Your task to perform on an android device: open app "Pandora - Music & Podcasts" (install if not already installed) Image 0: 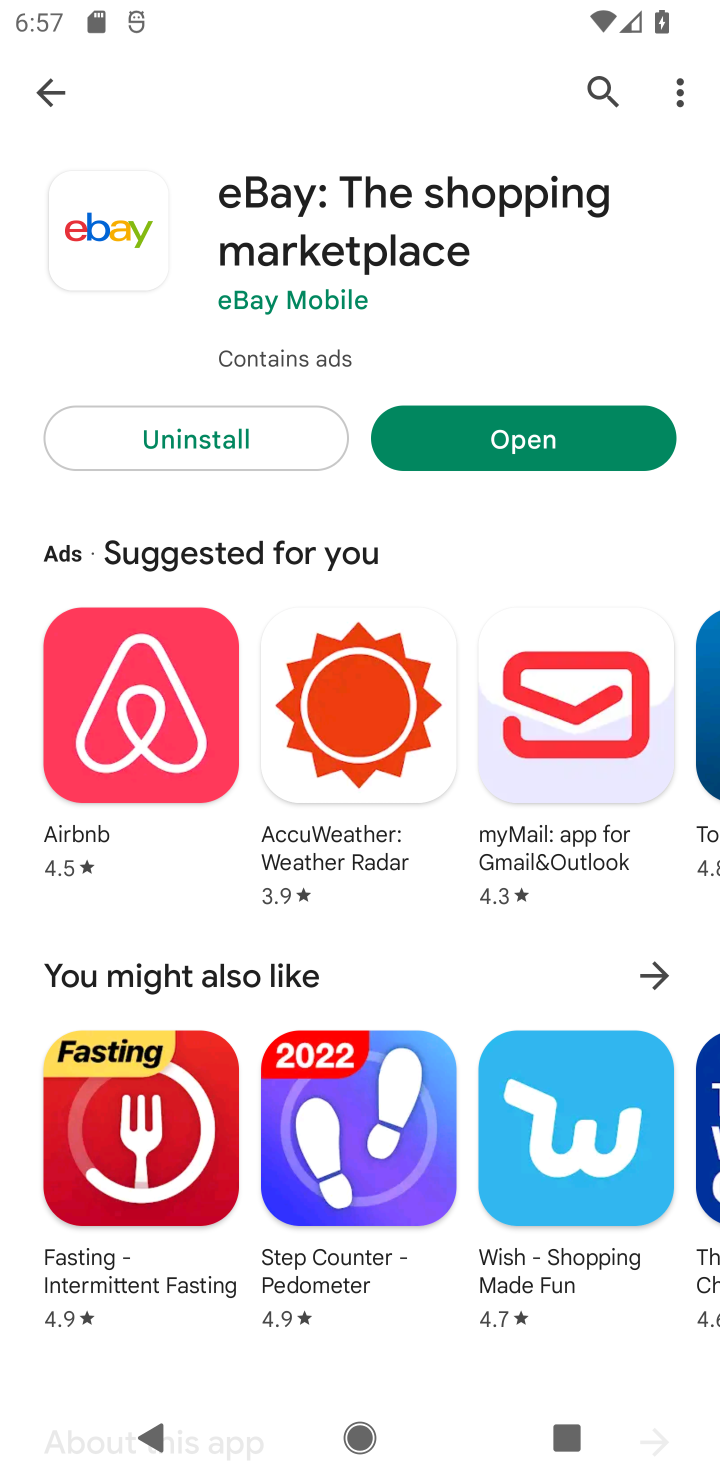
Step 0: click (618, 101)
Your task to perform on an android device: open app "Pandora - Music & Podcasts" (install if not already installed) Image 1: 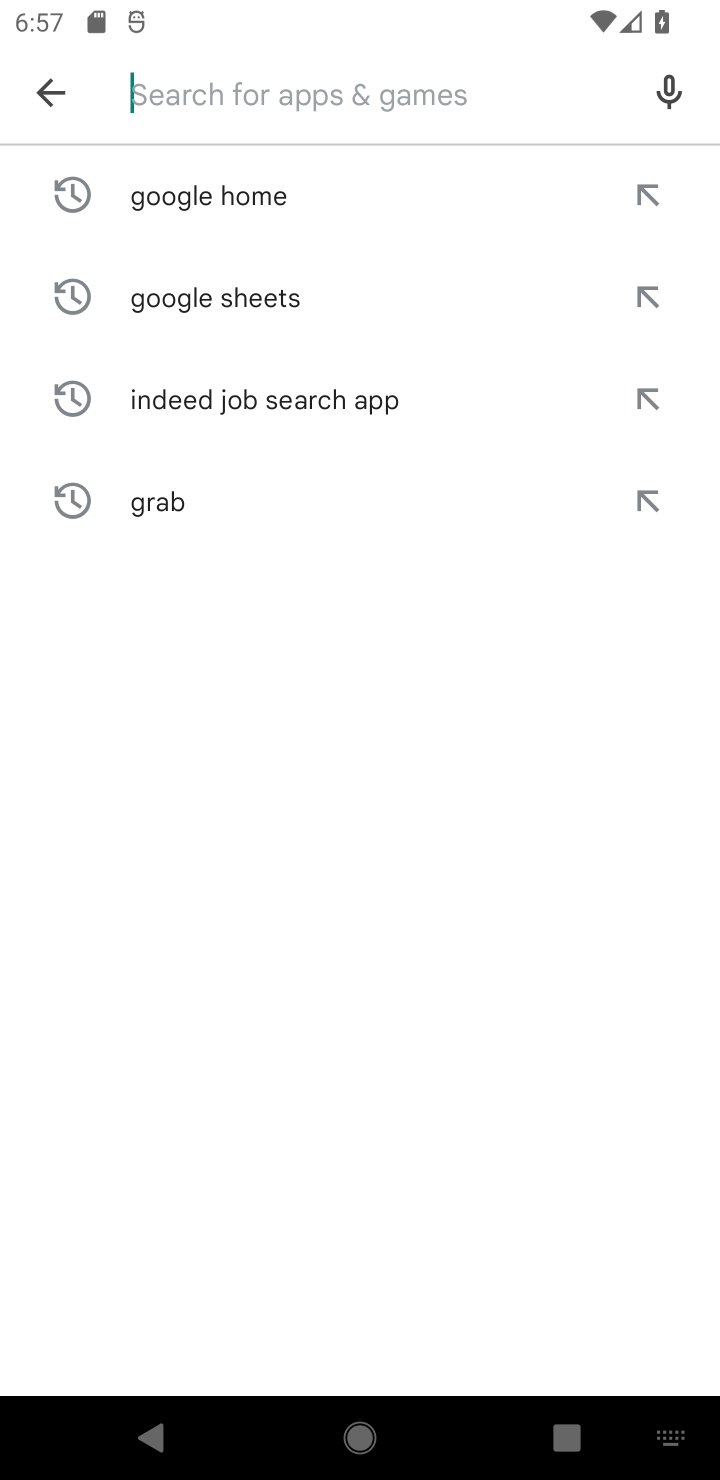
Step 1: click (475, 105)
Your task to perform on an android device: open app "Pandora - Music & Podcasts" (install if not already installed) Image 2: 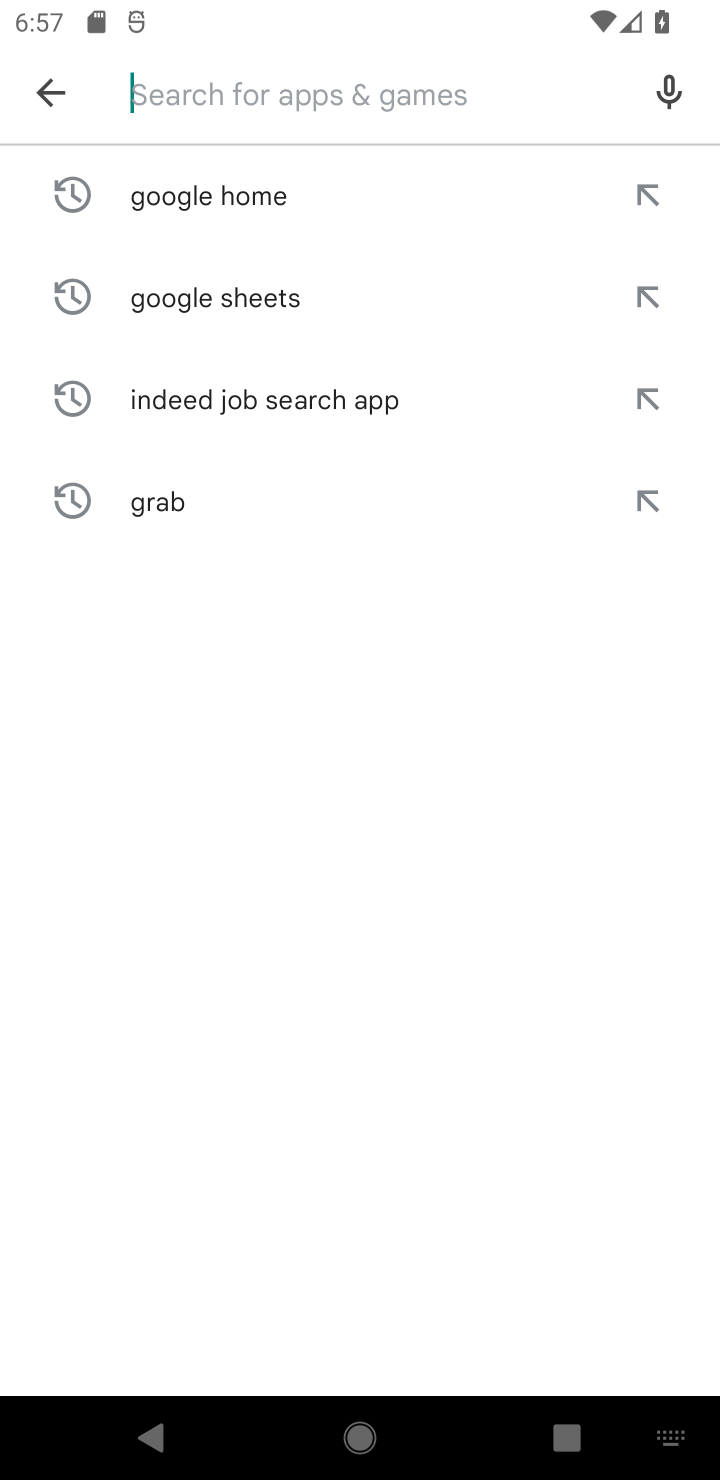
Step 2: type "Pandora - Music & Podcasts"
Your task to perform on an android device: open app "Pandora - Music & Podcasts" (install if not already installed) Image 3: 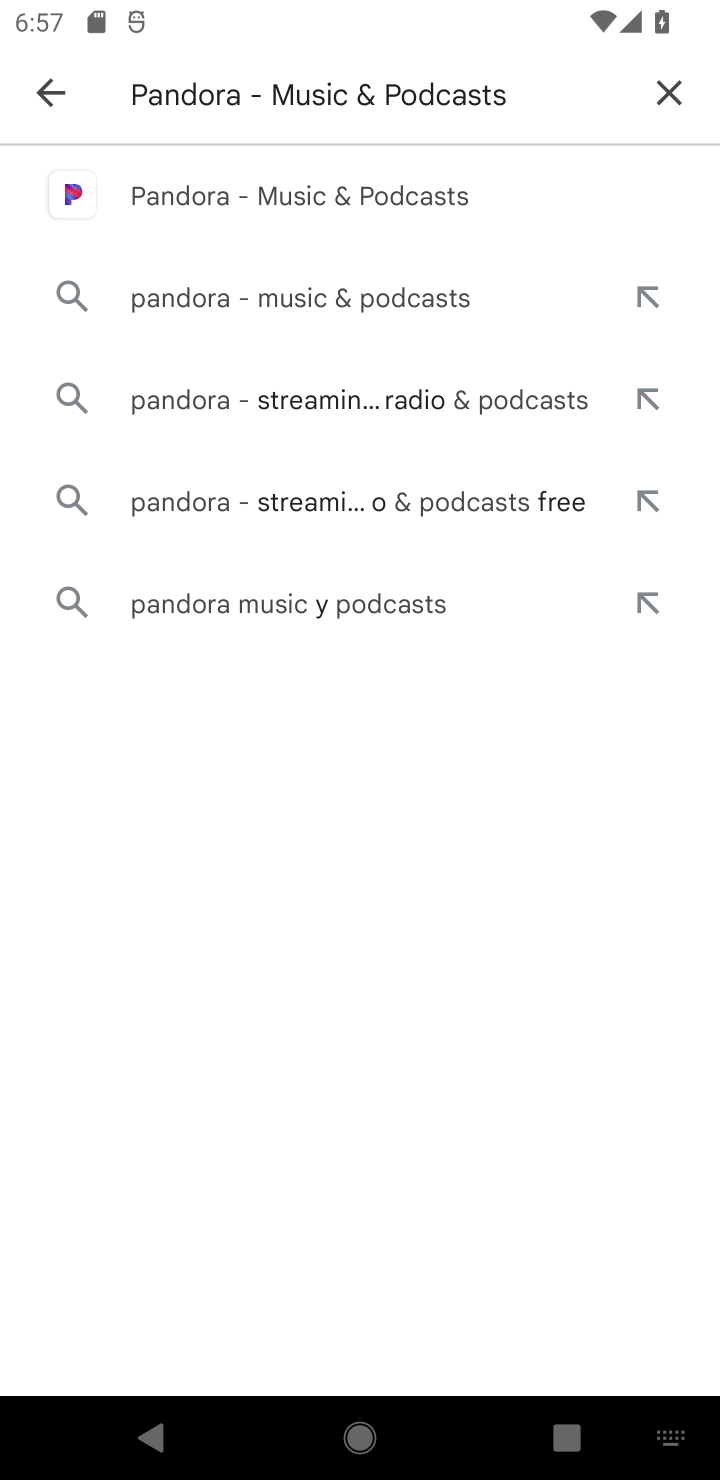
Step 3: click (210, 218)
Your task to perform on an android device: open app "Pandora - Music & Podcasts" (install if not already installed) Image 4: 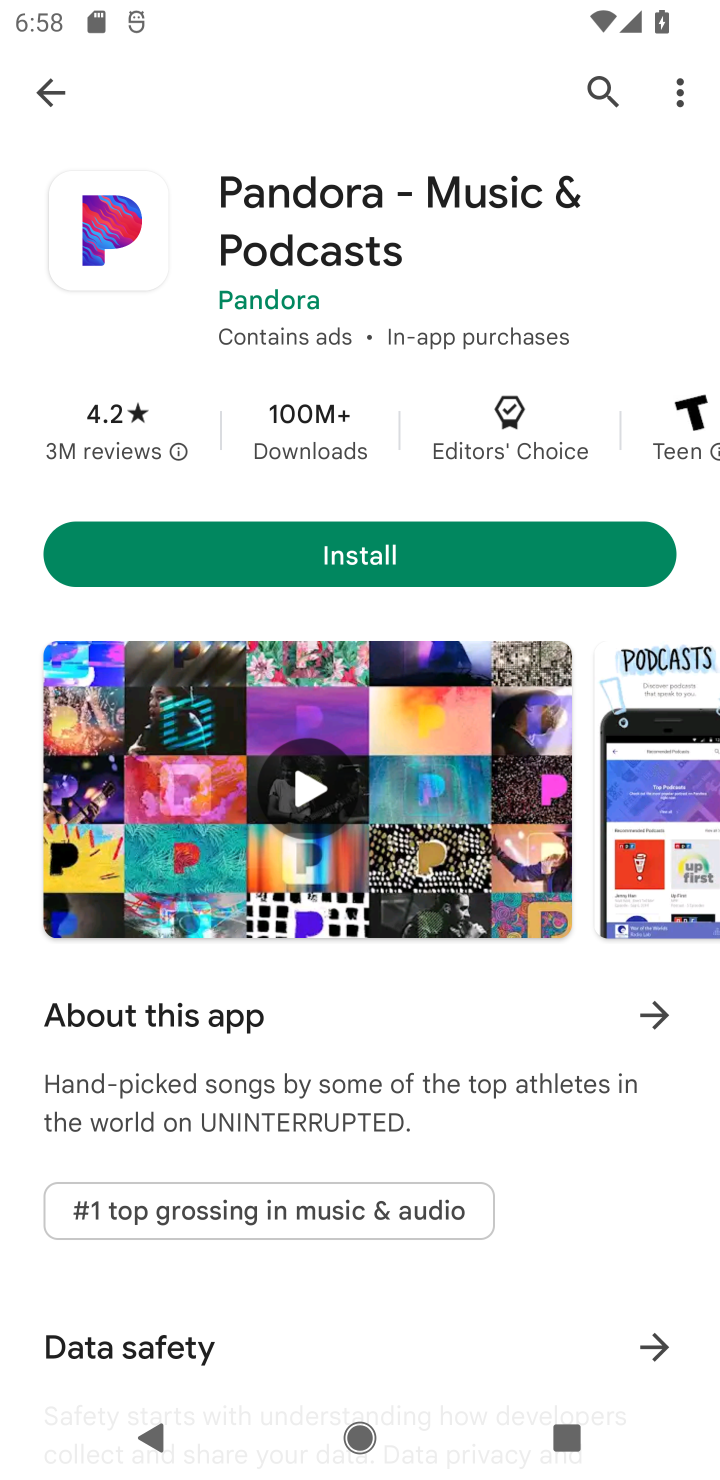
Step 4: click (360, 564)
Your task to perform on an android device: open app "Pandora - Music & Podcasts" (install if not already installed) Image 5: 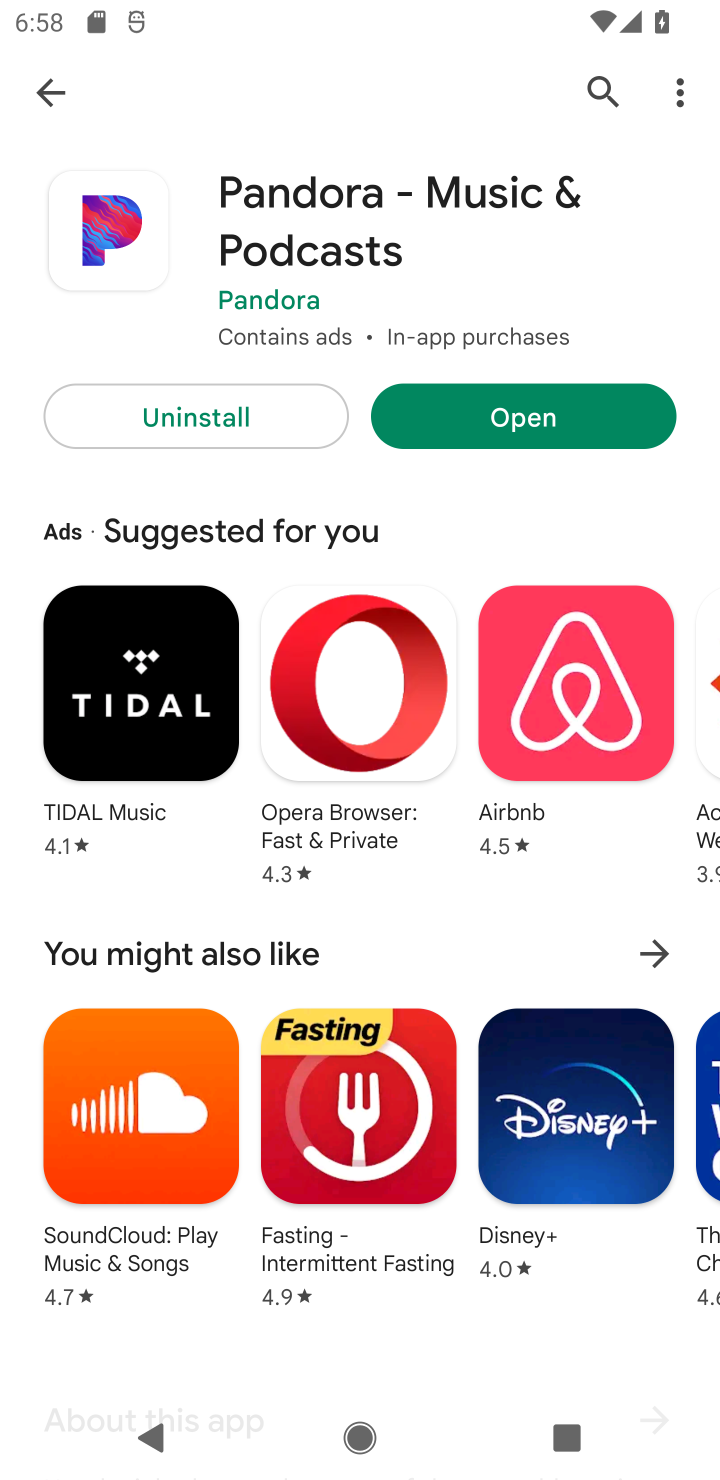
Step 5: click (536, 419)
Your task to perform on an android device: open app "Pandora - Music & Podcasts" (install if not already installed) Image 6: 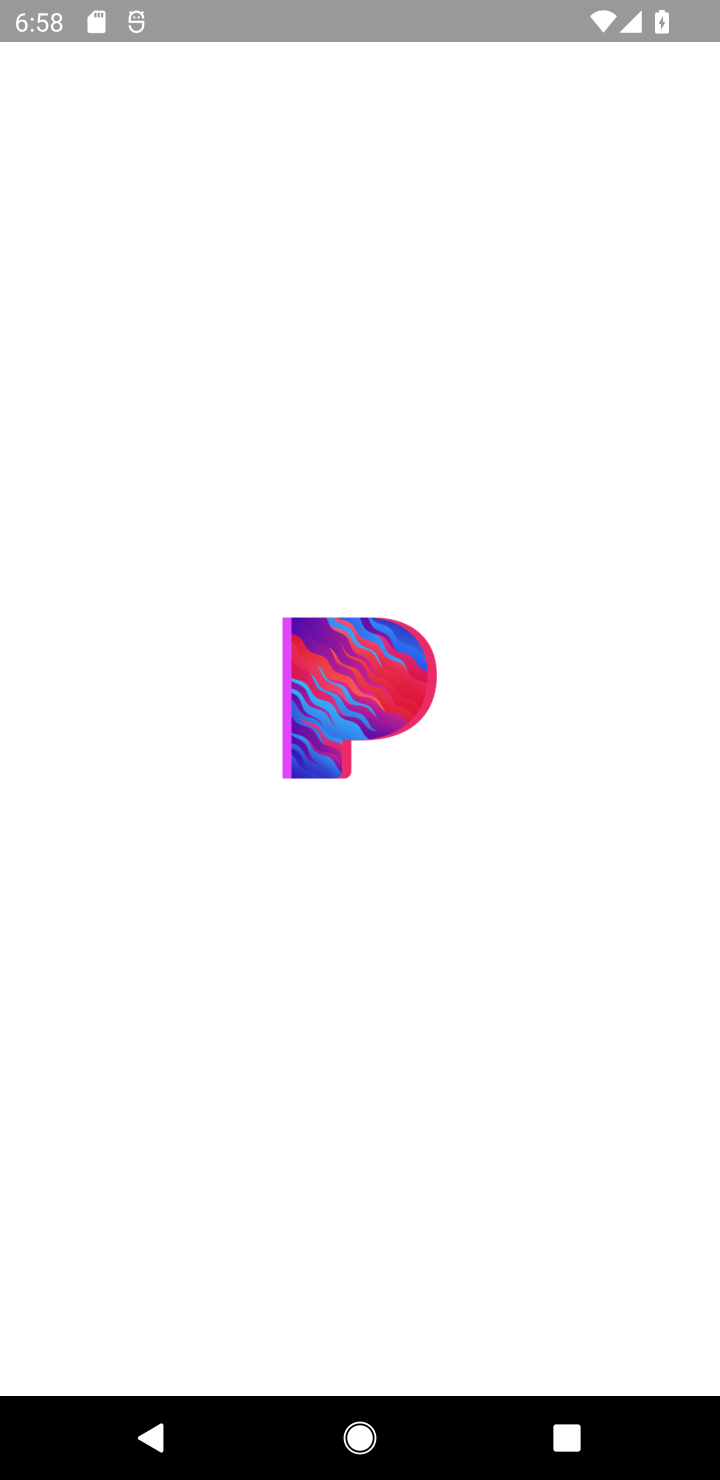
Step 6: task complete